Your task to perform on an android device: Go to network settings Image 0: 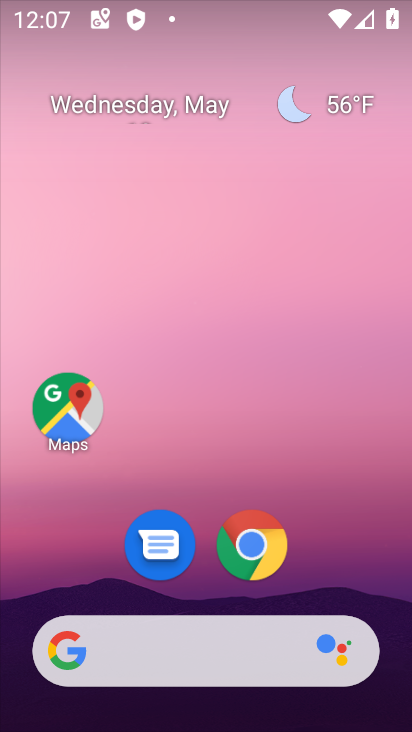
Step 0: drag from (327, 571) to (287, 122)
Your task to perform on an android device: Go to network settings Image 1: 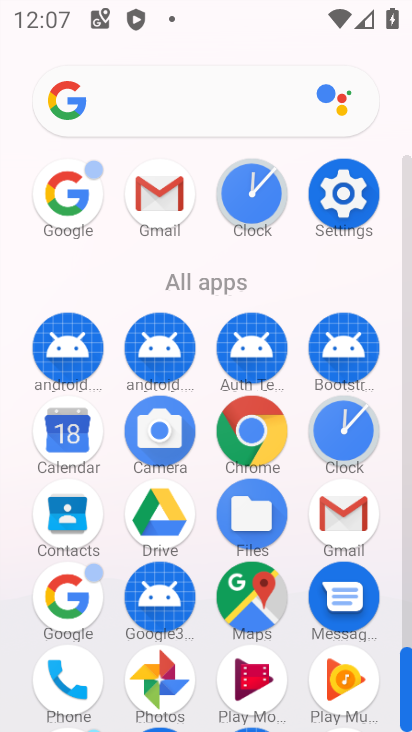
Step 1: click (343, 193)
Your task to perform on an android device: Go to network settings Image 2: 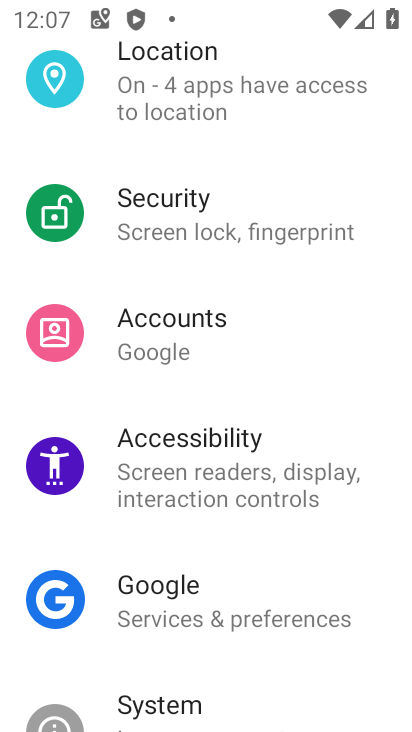
Step 2: drag from (244, 179) to (265, 356)
Your task to perform on an android device: Go to network settings Image 3: 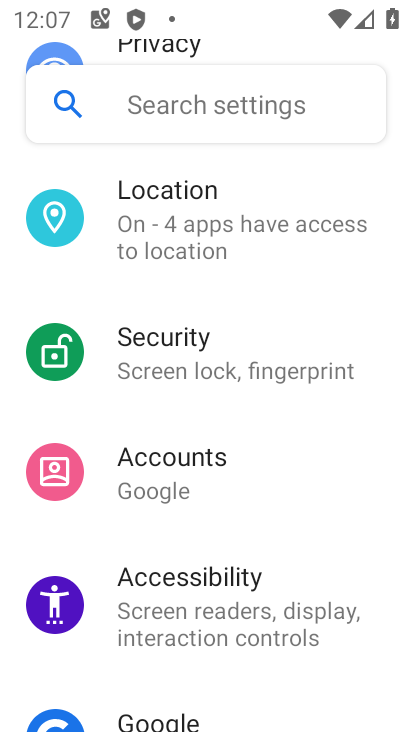
Step 3: drag from (231, 173) to (258, 394)
Your task to perform on an android device: Go to network settings Image 4: 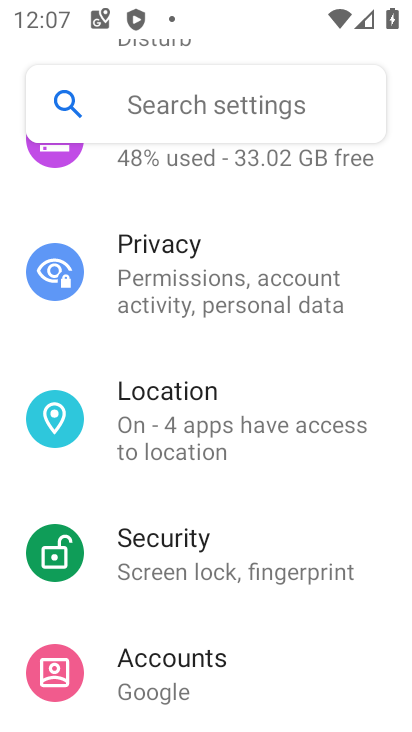
Step 4: drag from (230, 231) to (220, 385)
Your task to perform on an android device: Go to network settings Image 5: 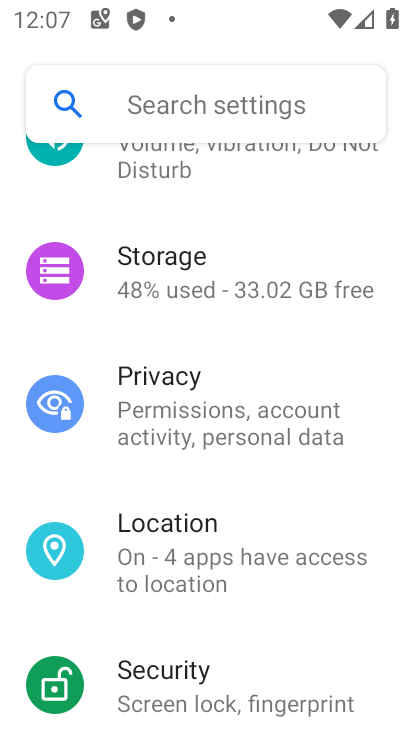
Step 5: drag from (238, 219) to (241, 403)
Your task to perform on an android device: Go to network settings Image 6: 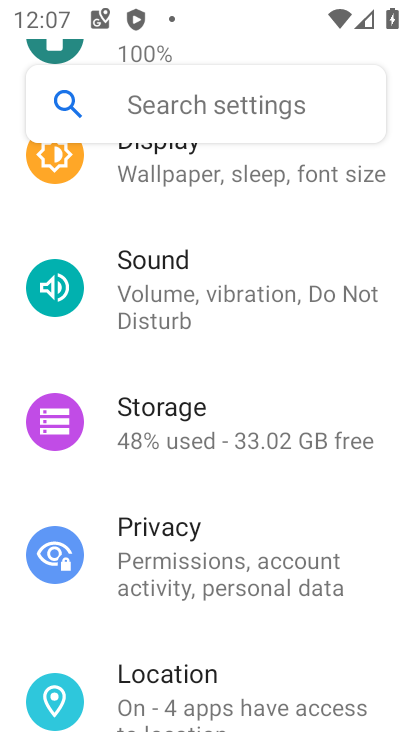
Step 6: drag from (231, 223) to (208, 421)
Your task to perform on an android device: Go to network settings Image 7: 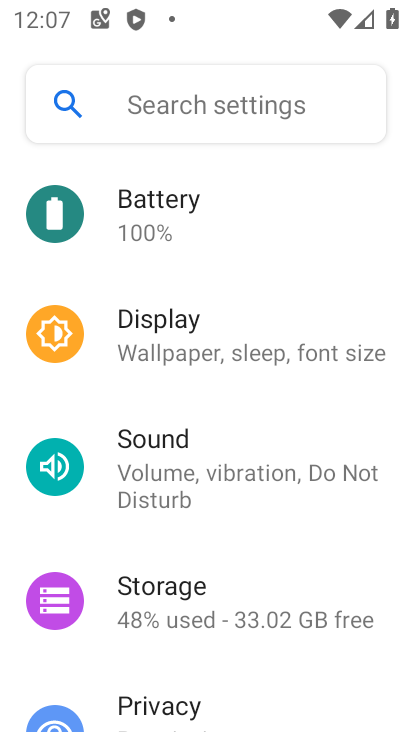
Step 7: drag from (188, 252) to (211, 438)
Your task to perform on an android device: Go to network settings Image 8: 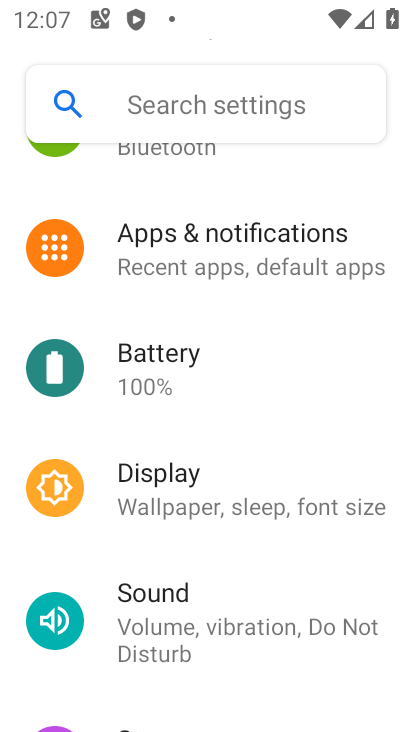
Step 8: drag from (206, 186) to (215, 424)
Your task to perform on an android device: Go to network settings Image 9: 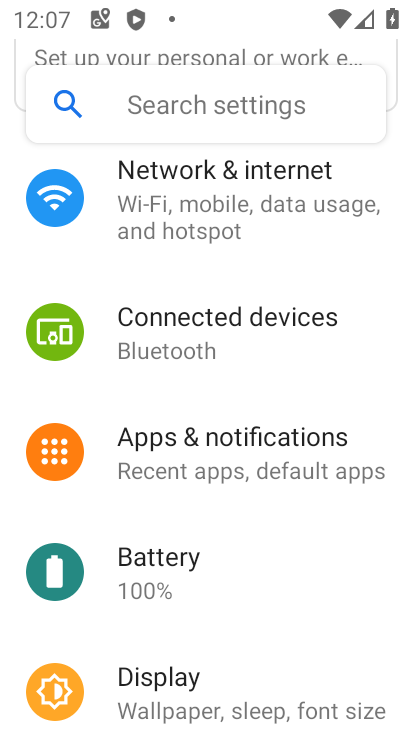
Step 9: drag from (195, 266) to (219, 435)
Your task to perform on an android device: Go to network settings Image 10: 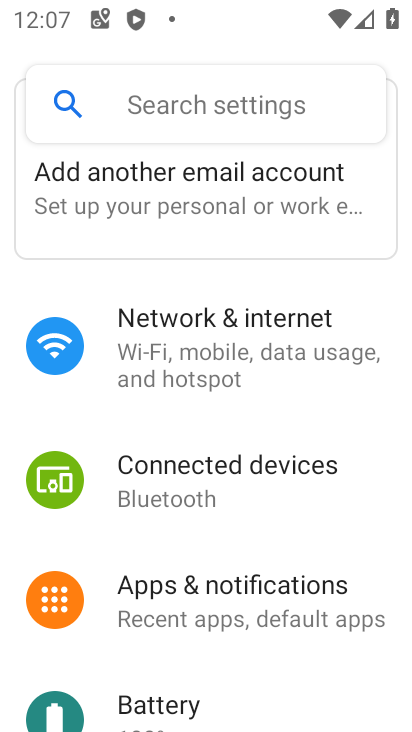
Step 10: click (195, 311)
Your task to perform on an android device: Go to network settings Image 11: 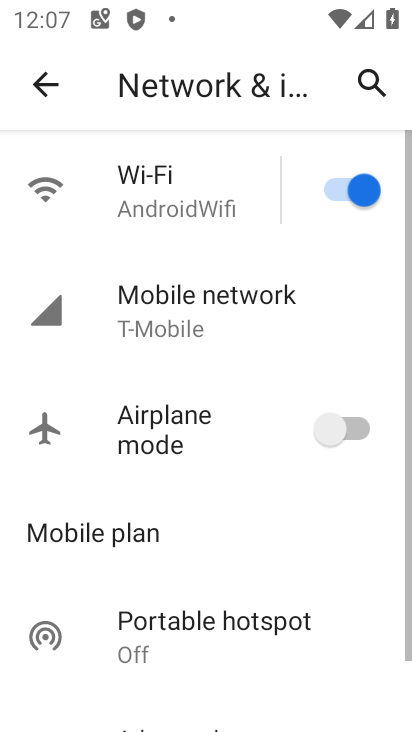
Step 11: click (195, 311)
Your task to perform on an android device: Go to network settings Image 12: 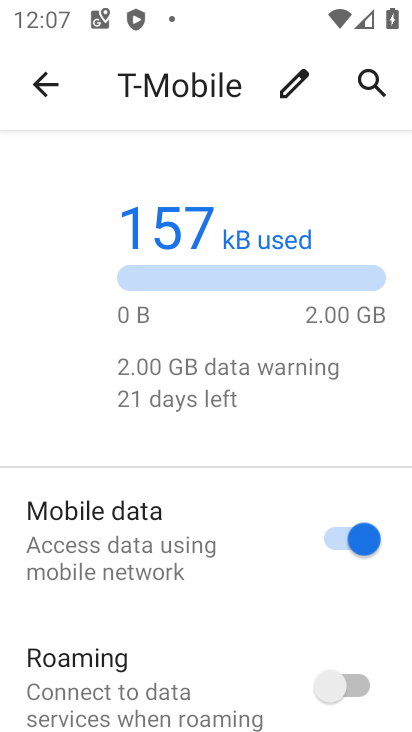
Step 12: task complete